Your task to perform on an android device: Show me popular videos on Youtube Image 0: 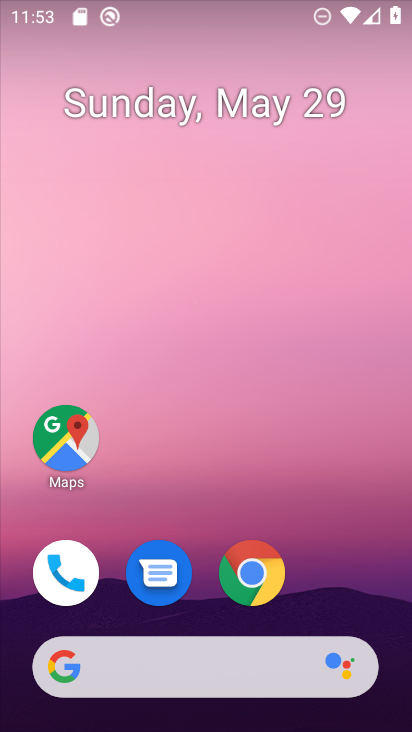
Step 0: drag from (355, 608) to (319, 139)
Your task to perform on an android device: Show me popular videos on Youtube Image 1: 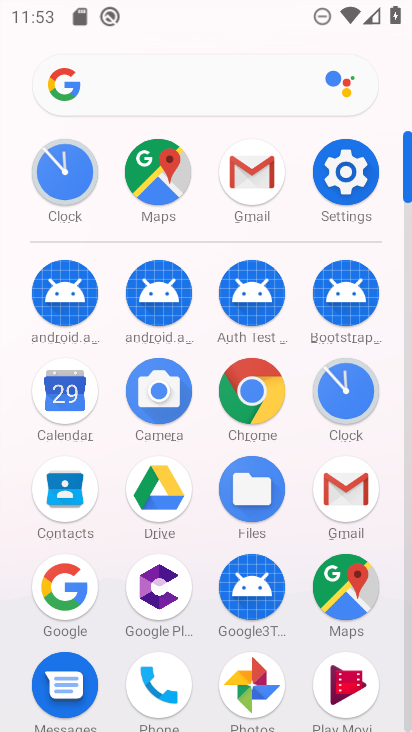
Step 1: drag from (201, 647) to (204, 207)
Your task to perform on an android device: Show me popular videos on Youtube Image 2: 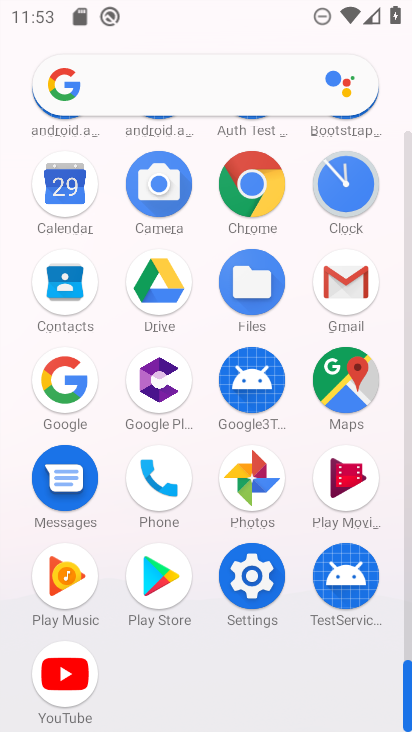
Step 2: click (52, 674)
Your task to perform on an android device: Show me popular videos on Youtube Image 3: 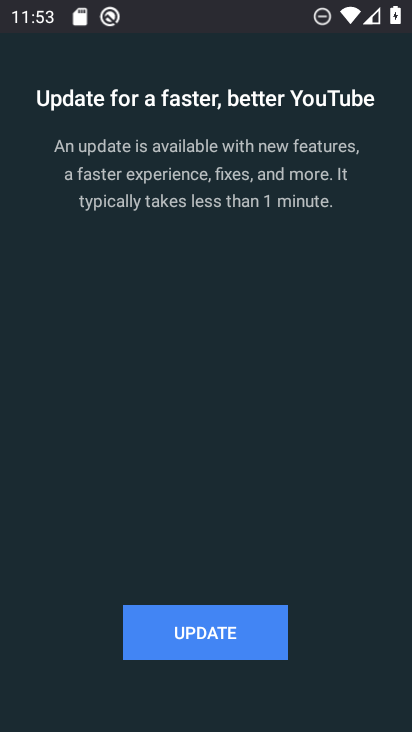
Step 3: click (216, 630)
Your task to perform on an android device: Show me popular videos on Youtube Image 4: 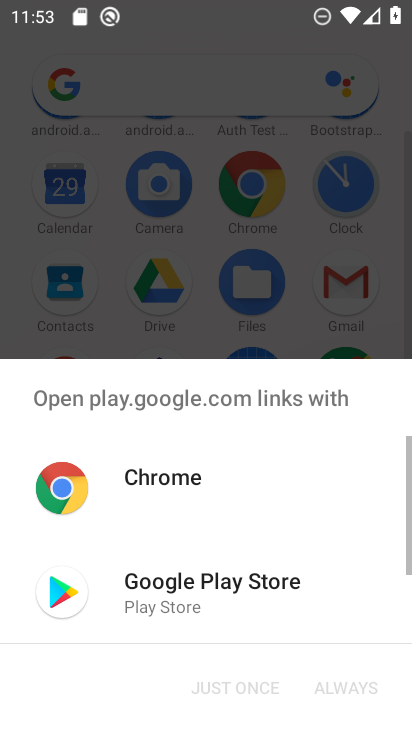
Step 4: click (224, 585)
Your task to perform on an android device: Show me popular videos on Youtube Image 5: 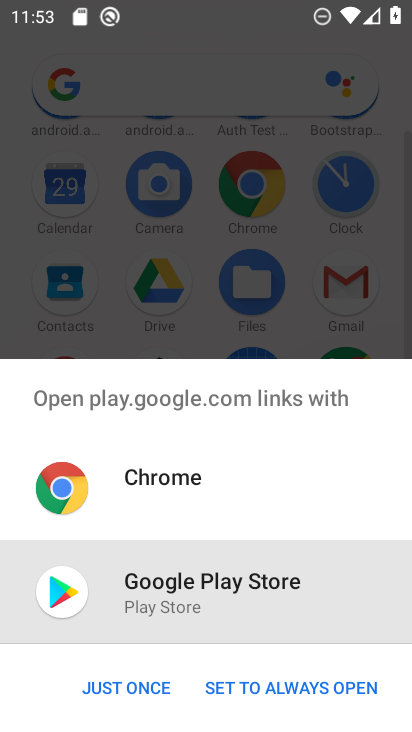
Step 5: click (120, 687)
Your task to perform on an android device: Show me popular videos on Youtube Image 6: 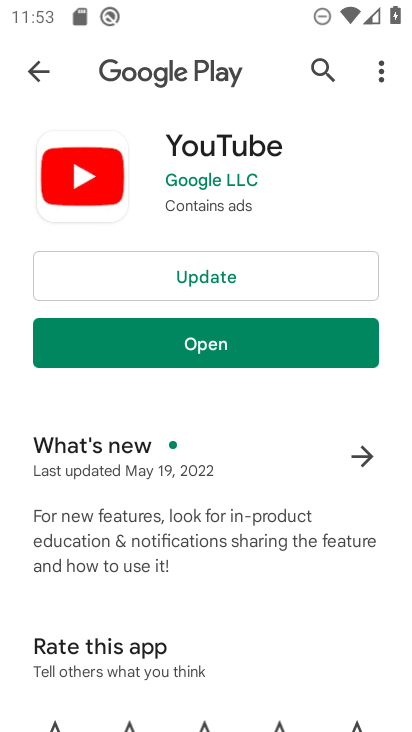
Step 6: click (218, 267)
Your task to perform on an android device: Show me popular videos on Youtube Image 7: 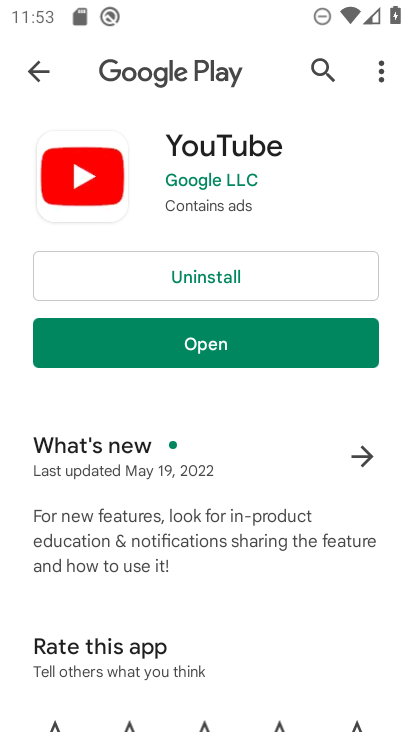
Step 7: click (170, 338)
Your task to perform on an android device: Show me popular videos on Youtube Image 8: 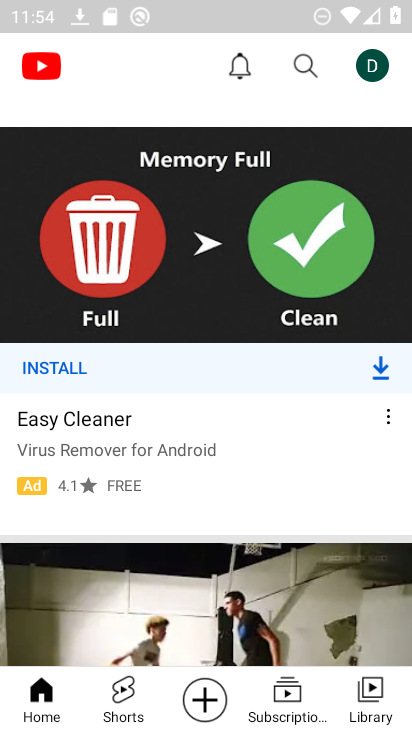
Step 8: drag from (233, 424) to (211, 623)
Your task to perform on an android device: Show me popular videos on Youtube Image 9: 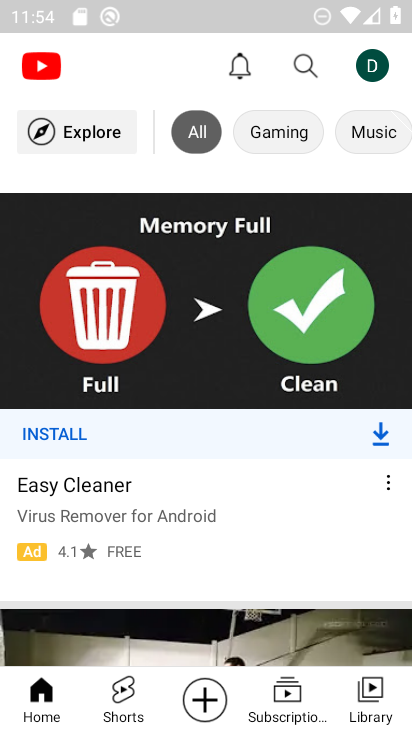
Step 9: click (57, 134)
Your task to perform on an android device: Show me popular videos on Youtube Image 10: 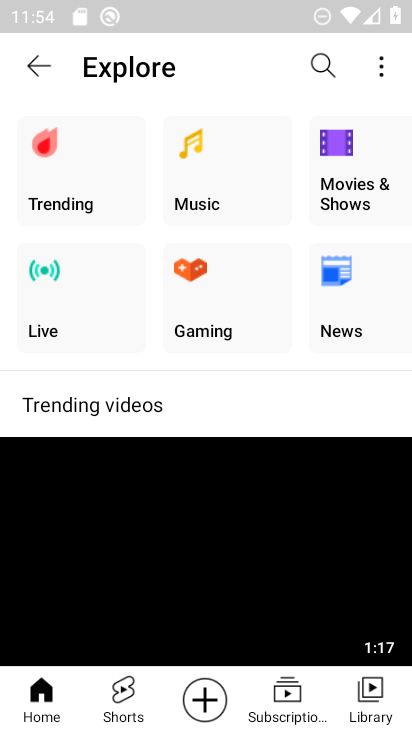
Step 10: click (81, 164)
Your task to perform on an android device: Show me popular videos on Youtube Image 11: 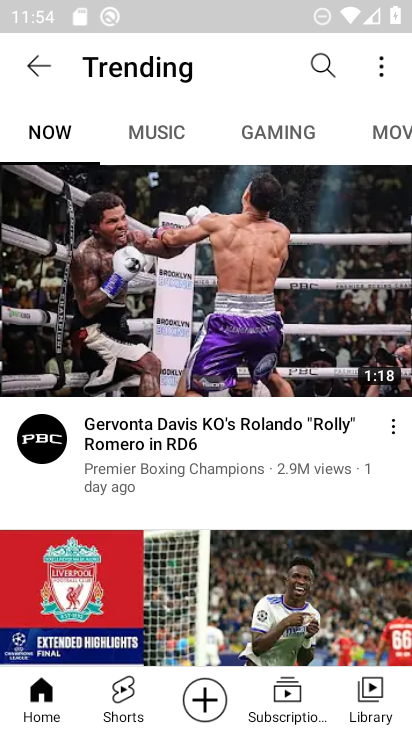
Step 11: task complete